Your task to perform on an android device: turn off smart reply in the gmail app Image 0: 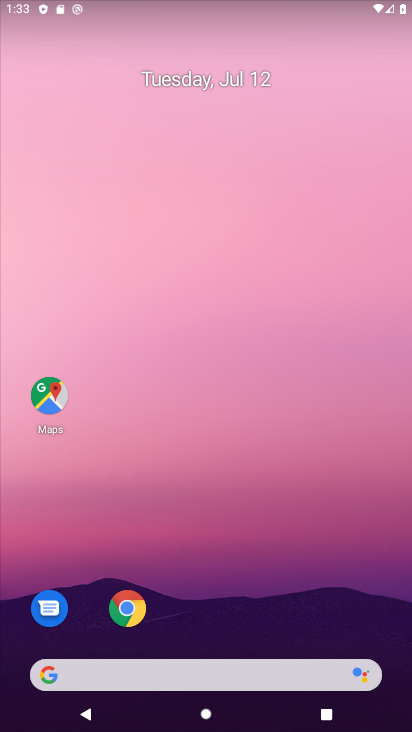
Step 0: drag from (262, 627) to (249, 215)
Your task to perform on an android device: turn off smart reply in the gmail app Image 1: 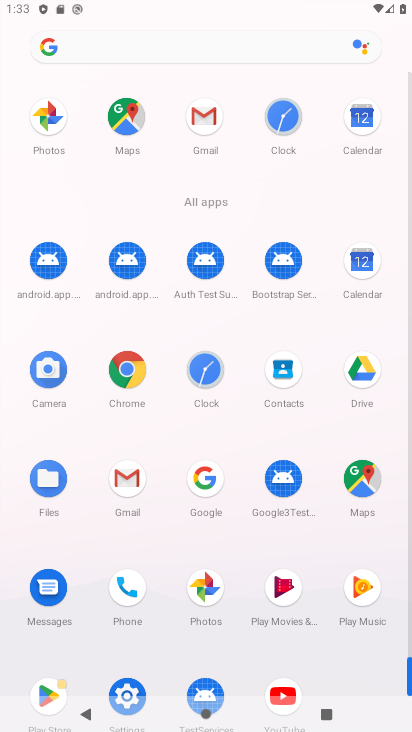
Step 1: click (207, 111)
Your task to perform on an android device: turn off smart reply in the gmail app Image 2: 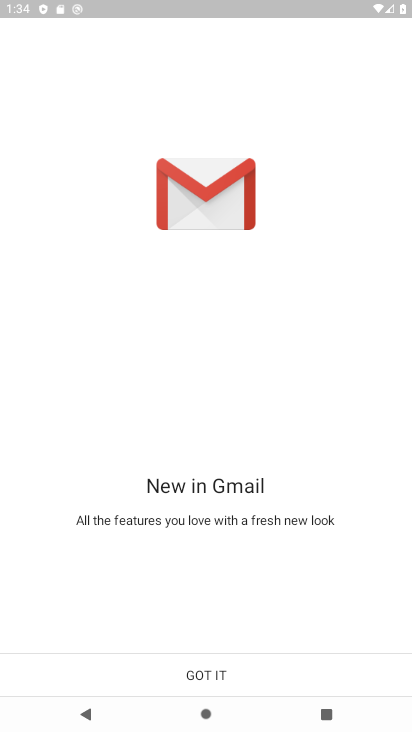
Step 2: click (195, 668)
Your task to perform on an android device: turn off smart reply in the gmail app Image 3: 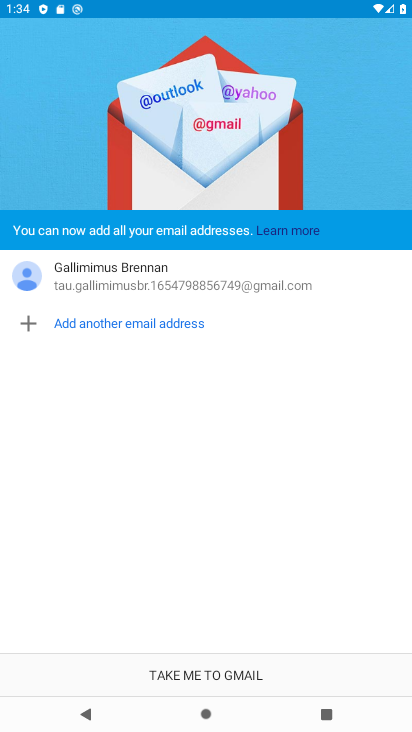
Step 3: click (217, 662)
Your task to perform on an android device: turn off smart reply in the gmail app Image 4: 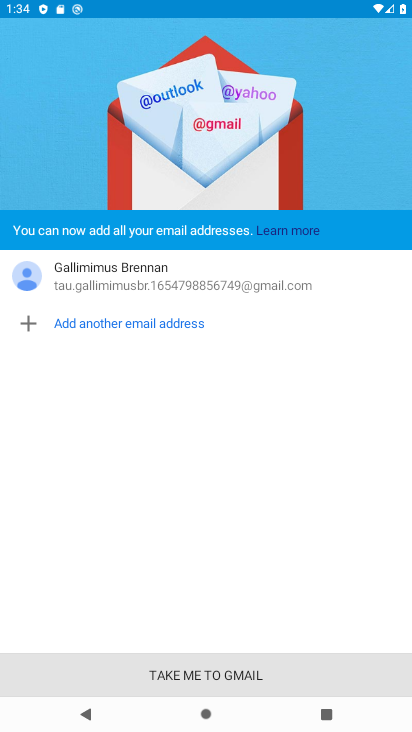
Step 4: click (230, 672)
Your task to perform on an android device: turn off smart reply in the gmail app Image 5: 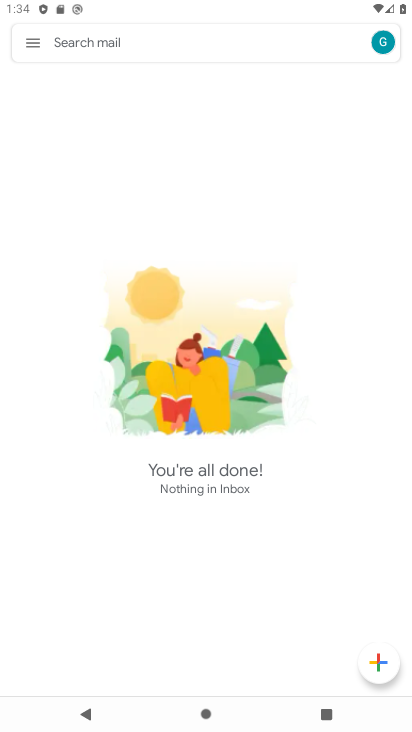
Step 5: click (33, 42)
Your task to perform on an android device: turn off smart reply in the gmail app Image 6: 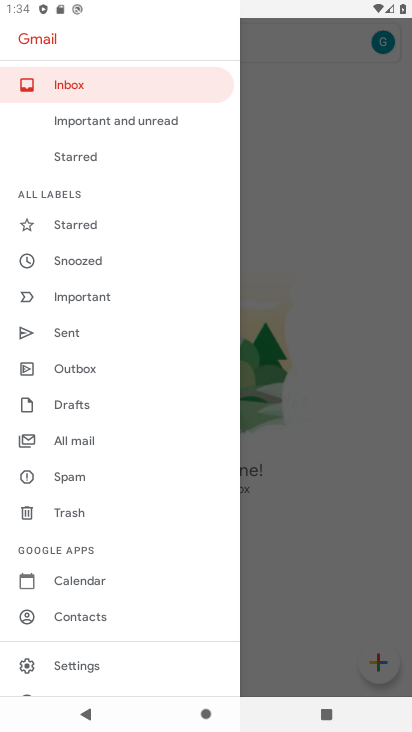
Step 6: click (80, 659)
Your task to perform on an android device: turn off smart reply in the gmail app Image 7: 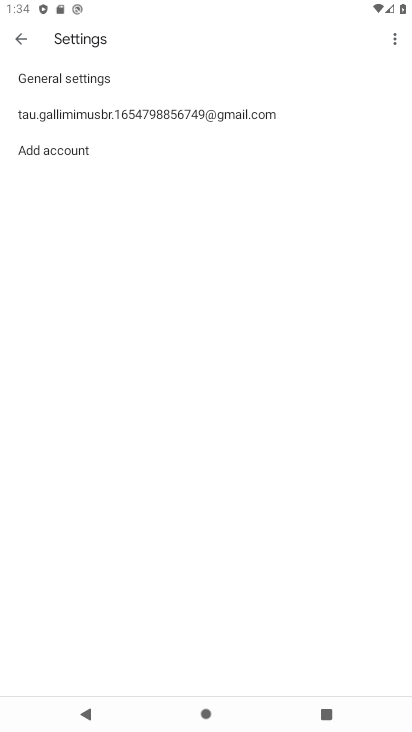
Step 7: click (139, 107)
Your task to perform on an android device: turn off smart reply in the gmail app Image 8: 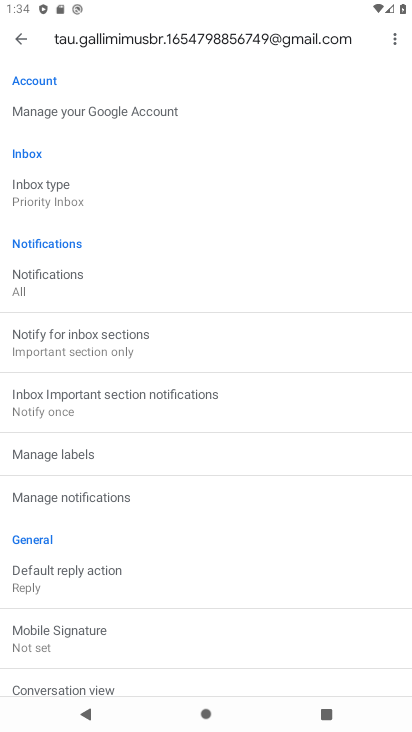
Step 8: drag from (210, 218) to (211, 179)
Your task to perform on an android device: turn off smart reply in the gmail app Image 9: 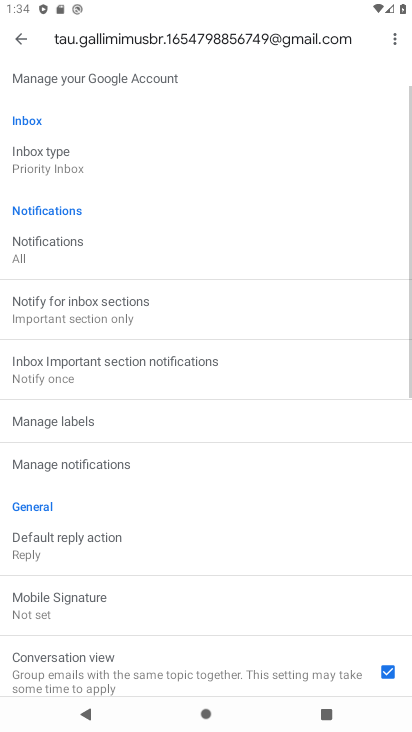
Step 9: click (207, 142)
Your task to perform on an android device: turn off smart reply in the gmail app Image 10: 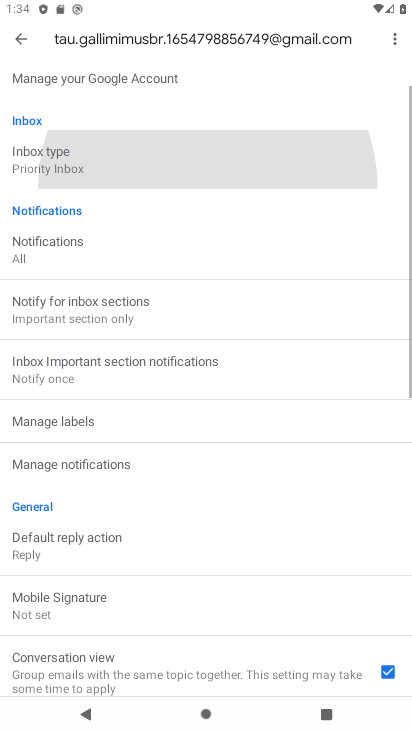
Step 10: drag from (261, 200) to (281, 120)
Your task to perform on an android device: turn off smart reply in the gmail app Image 11: 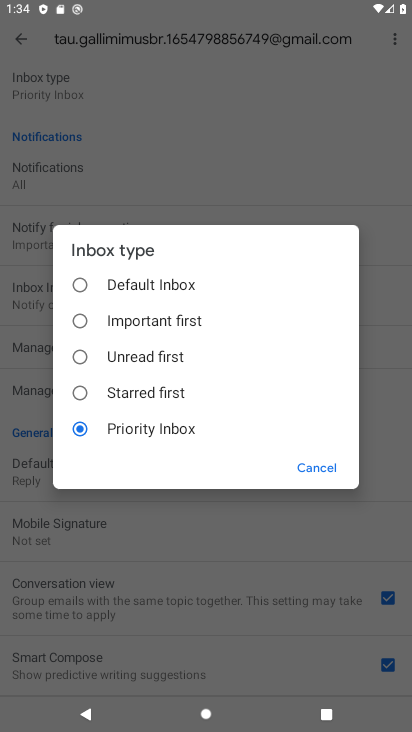
Step 11: click (322, 469)
Your task to perform on an android device: turn off smart reply in the gmail app Image 12: 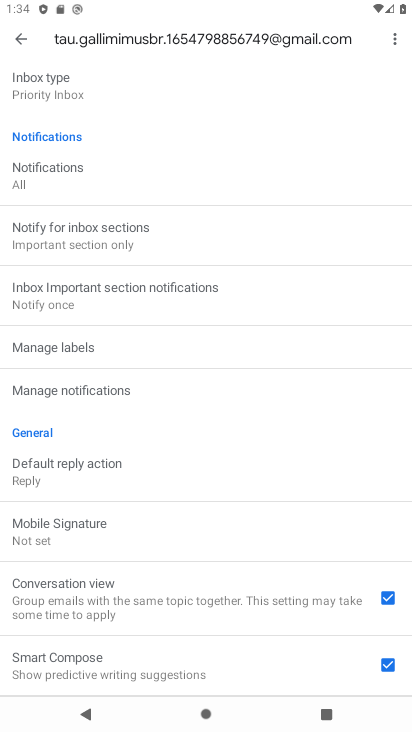
Step 12: drag from (274, 556) to (300, 94)
Your task to perform on an android device: turn off smart reply in the gmail app Image 13: 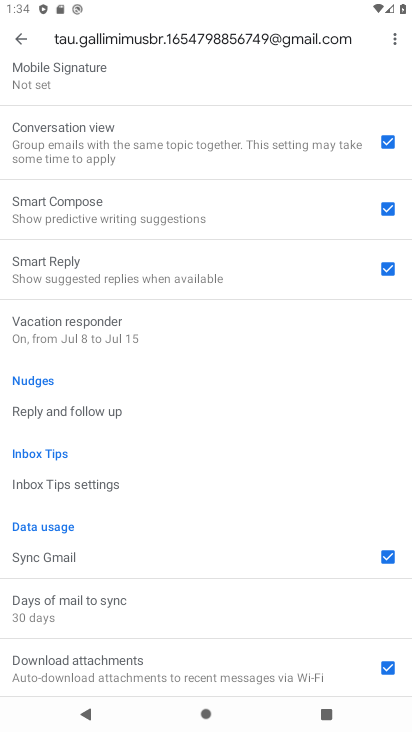
Step 13: click (386, 270)
Your task to perform on an android device: turn off smart reply in the gmail app Image 14: 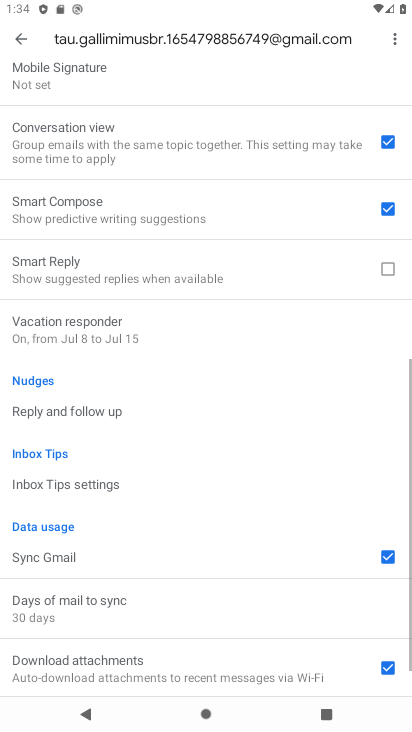
Step 14: task complete